Your task to perform on an android device: open sync settings in chrome Image 0: 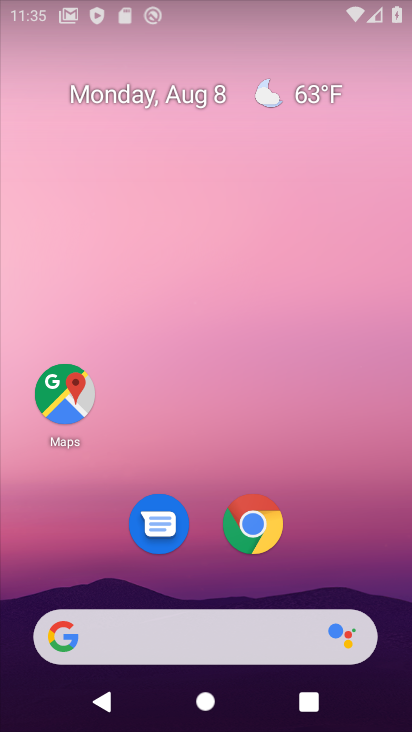
Step 0: click (243, 532)
Your task to perform on an android device: open sync settings in chrome Image 1: 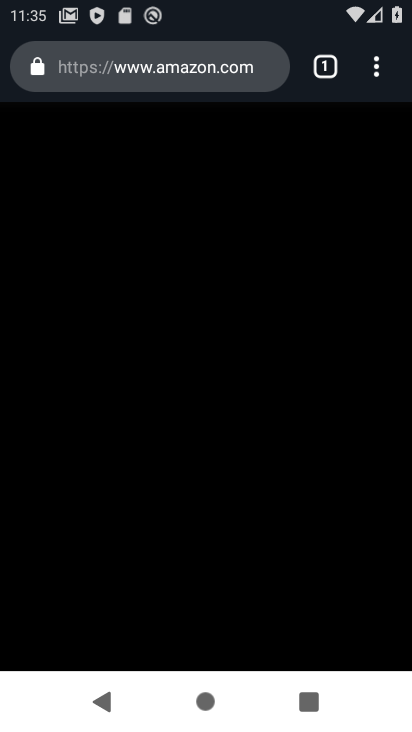
Step 1: click (389, 65)
Your task to perform on an android device: open sync settings in chrome Image 2: 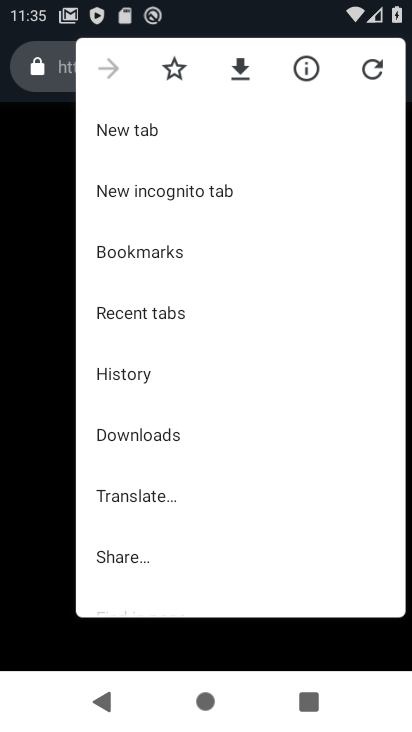
Step 2: drag from (177, 466) to (166, 152)
Your task to perform on an android device: open sync settings in chrome Image 3: 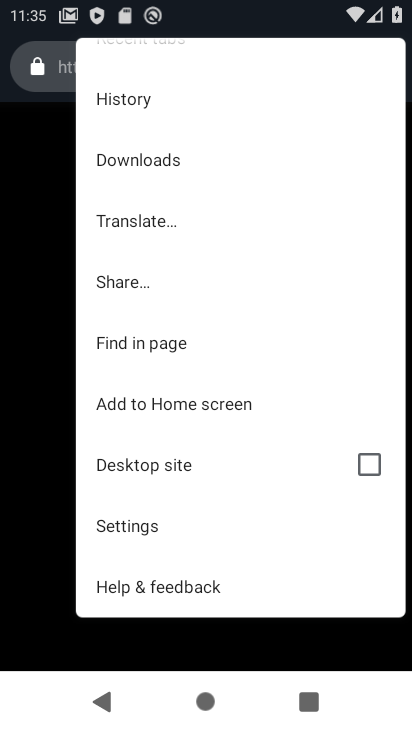
Step 3: click (188, 532)
Your task to perform on an android device: open sync settings in chrome Image 4: 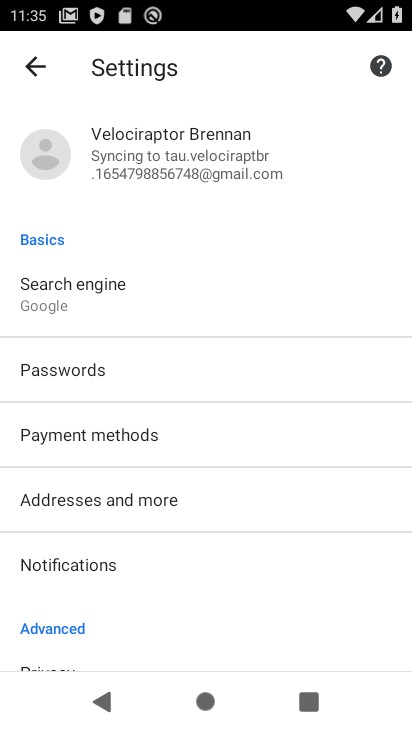
Step 4: click (183, 155)
Your task to perform on an android device: open sync settings in chrome Image 5: 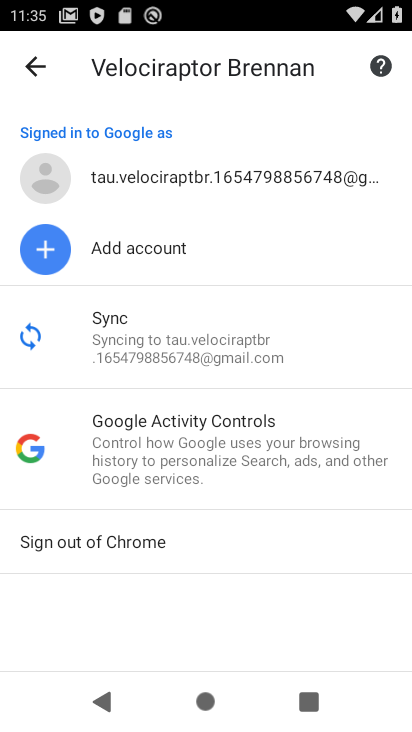
Step 5: click (187, 290)
Your task to perform on an android device: open sync settings in chrome Image 6: 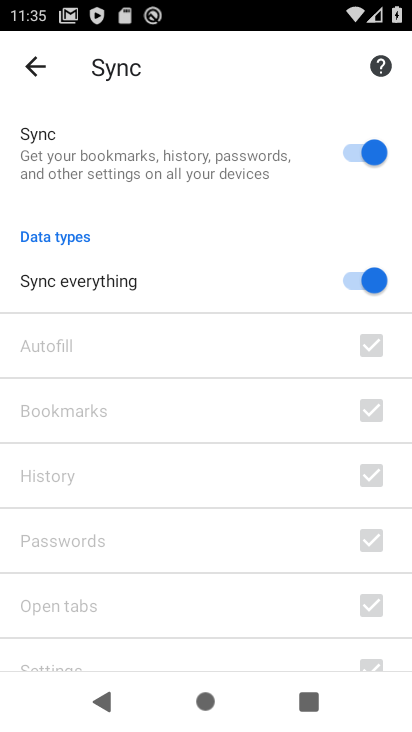
Step 6: task complete